Your task to perform on an android device: turn on the 24-hour format for clock Image 0: 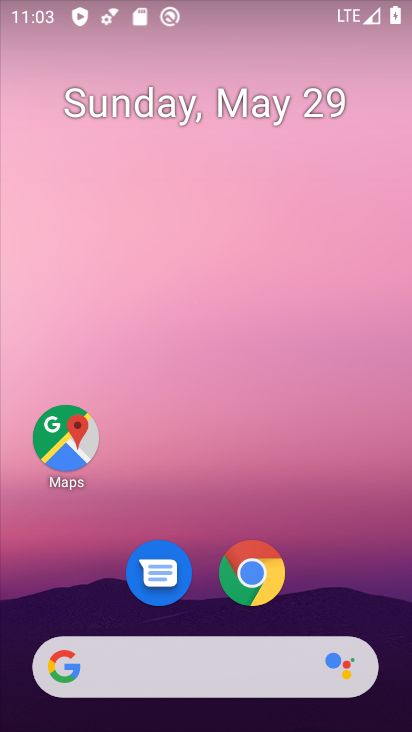
Step 0: drag from (280, 84) to (251, 21)
Your task to perform on an android device: turn on the 24-hour format for clock Image 1: 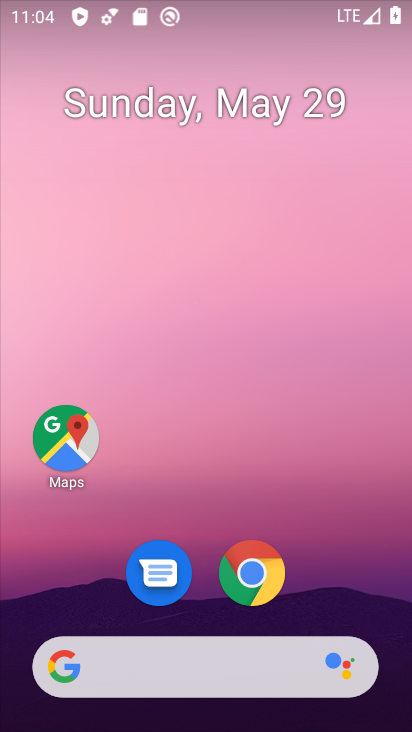
Step 1: drag from (327, 459) to (98, 25)
Your task to perform on an android device: turn on the 24-hour format for clock Image 2: 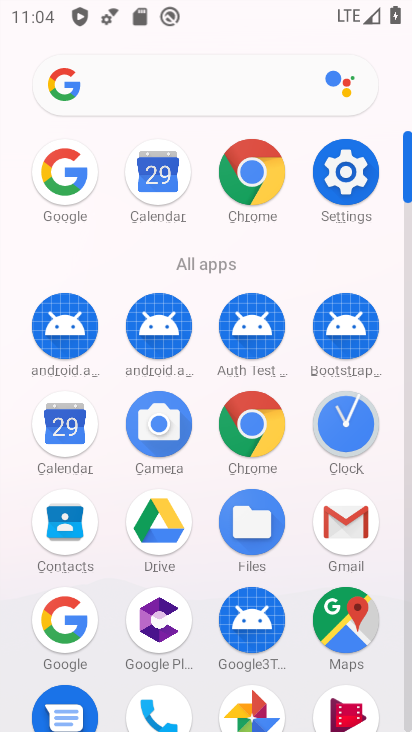
Step 2: click (333, 414)
Your task to perform on an android device: turn on the 24-hour format for clock Image 3: 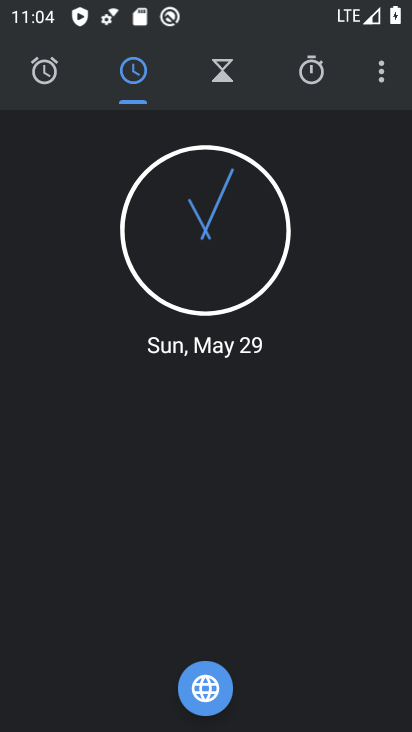
Step 3: click (385, 66)
Your task to perform on an android device: turn on the 24-hour format for clock Image 4: 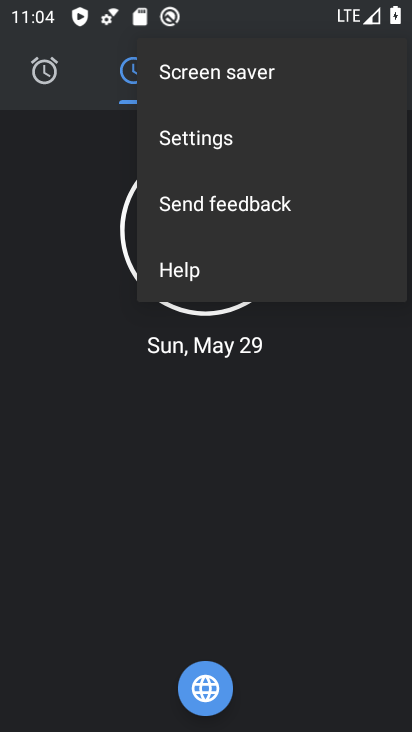
Step 4: click (205, 149)
Your task to perform on an android device: turn on the 24-hour format for clock Image 5: 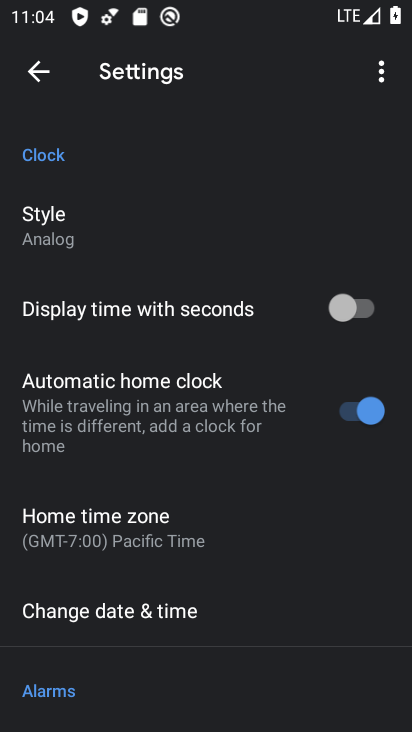
Step 5: click (181, 605)
Your task to perform on an android device: turn on the 24-hour format for clock Image 6: 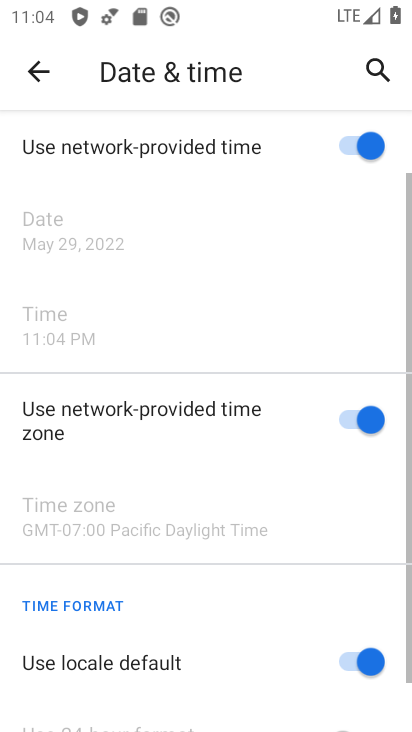
Step 6: drag from (270, 622) to (273, 113)
Your task to perform on an android device: turn on the 24-hour format for clock Image 7: 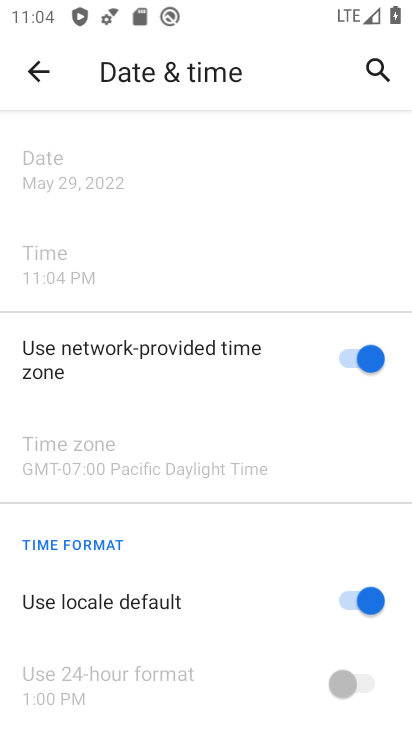
Step 7: drag from (253, 639) to (301, 4)
Your task to perform on an android device: turn on the 24-hour format for clock Image 8: 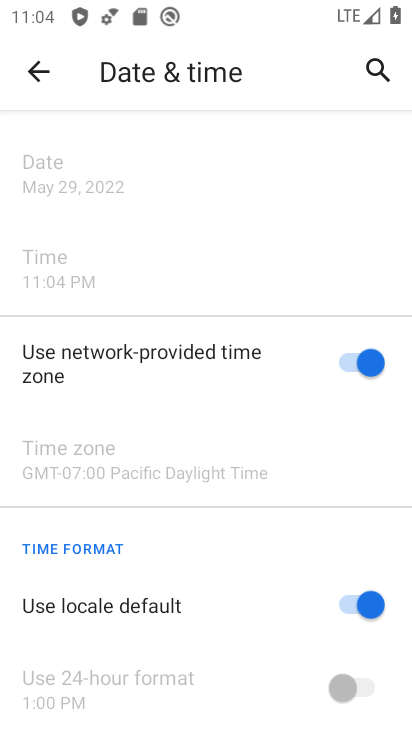
Step 8: click (358, 597)
Your task to perform on an android device: turn on the 24-hour format for clock Image 9: 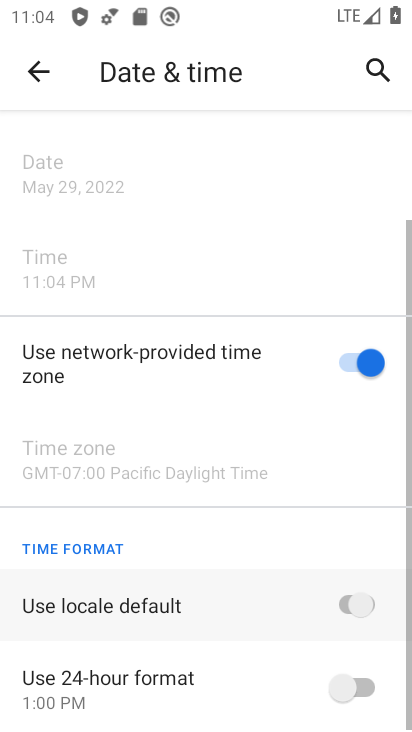
Step 9: click (338, 694)
Your task to perform on an android device: turn on the 24-hour format for clock Image 10: 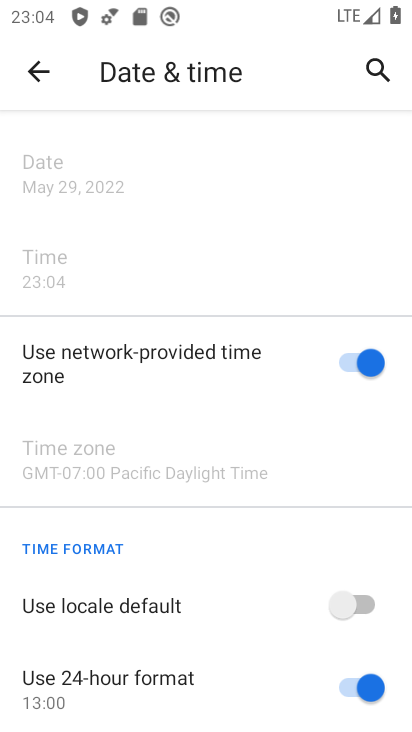
Step 10: task complete